Your task to perform on an android device: open chrome and create a bookmark for the current page Image 0: 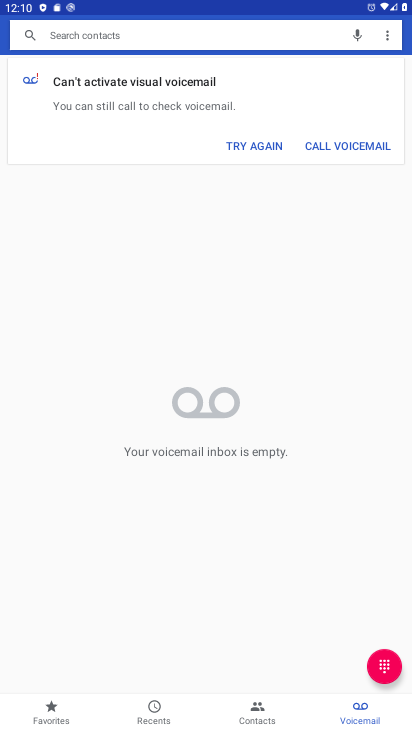
Step 0: drag from (310, 119) to (327, 54)
Your task to perform on an android device: open chrome and create a bookmark for the current page Image 1: 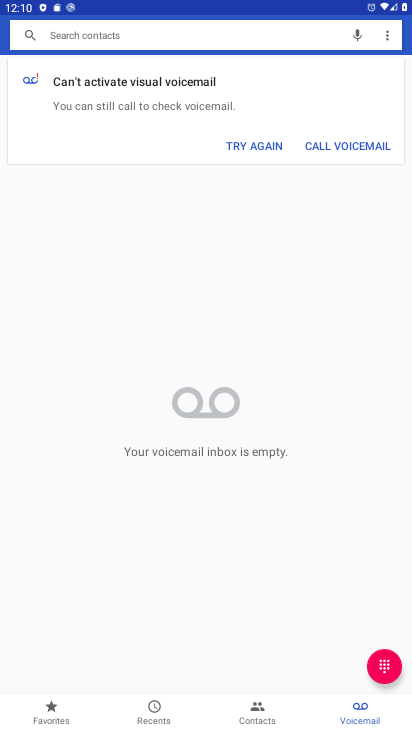
Step 1: press home button
Your task to perform on an android device: open chrome and create a bookmark for the current page Image 2: 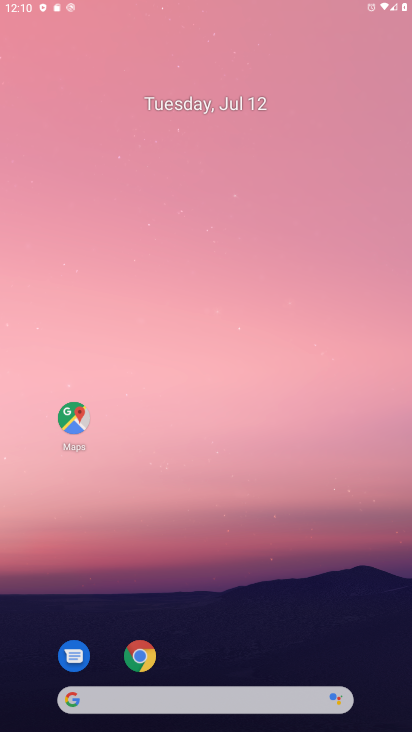
Step 2: drag from (72, 358) to (175, 167)
Your task to perform on an android device: open chrome and create a bookmark for the current page Image 3: 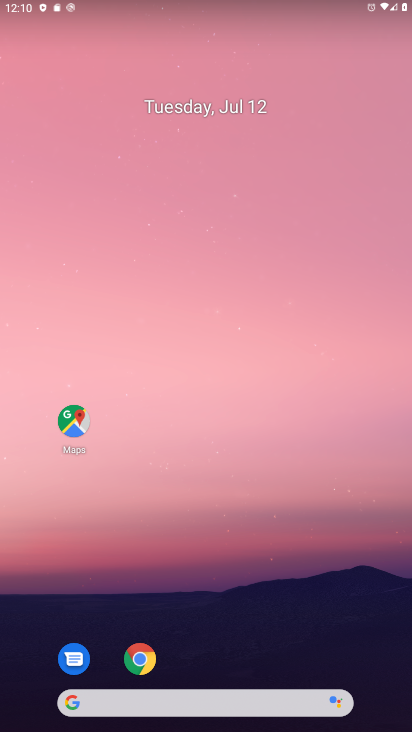
Step 3: click (133, 673)
Your task to perform on an android device: open chrome and create a bookmark for the current page Image 4: 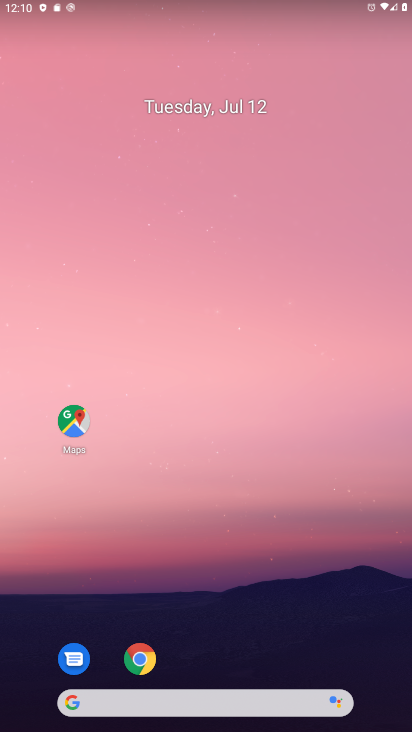
Step 4: click (146, 658)
Your task to perform on an android device: open chrome and create a bookmark for the current page Image 5: 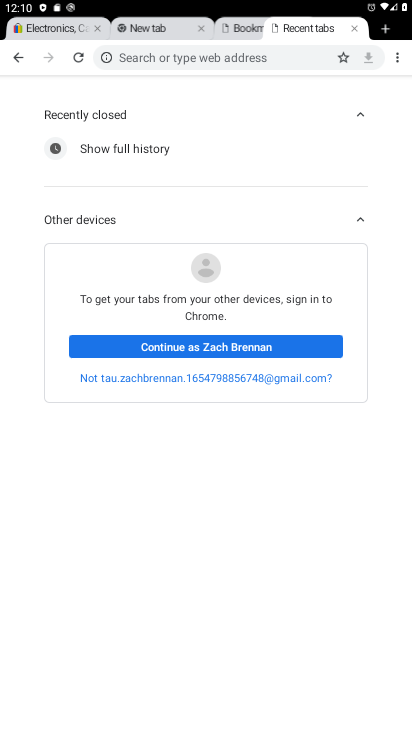
Step 5: click (402, 61)
Your task to perform on an android device: open chrome and create a bookmark for the current page Image 6: 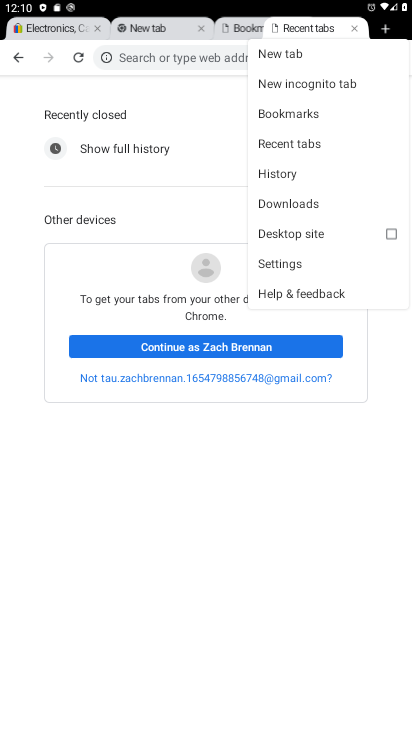
Step 6: click (297, 125)
Your task to perform on an android device: open chrome and create a bookmark for the current page Image 7: 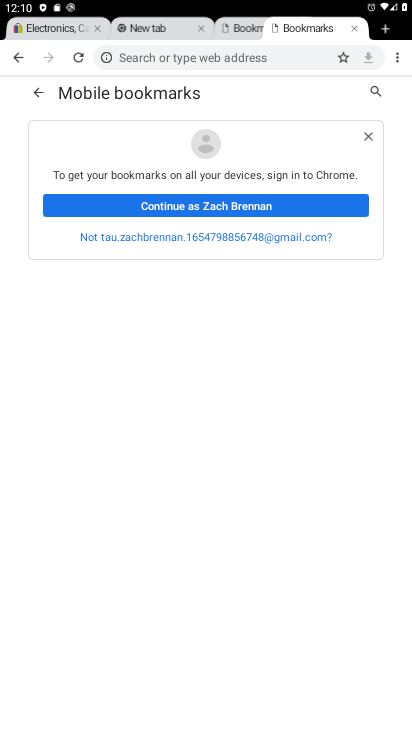
Step 7: click (340, 51)
Your task to perform on an android device: open chrome and create a bookmark for the current page Image 8: 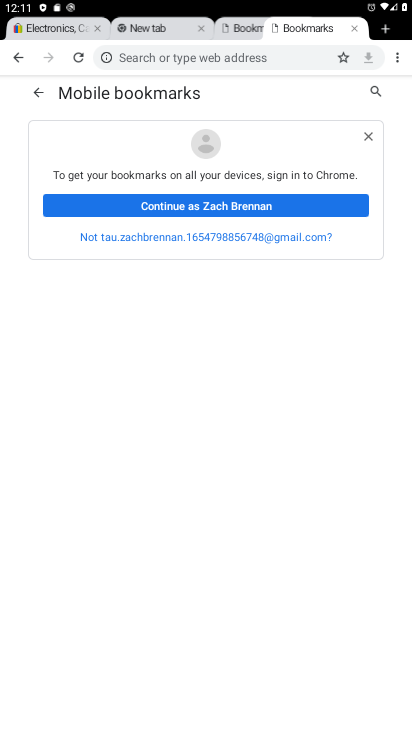
Step 8: drag from (289, 523) to (261, 112)
Your task to perform on an android device: open chrome and create a bookmark for the current page Image 9: 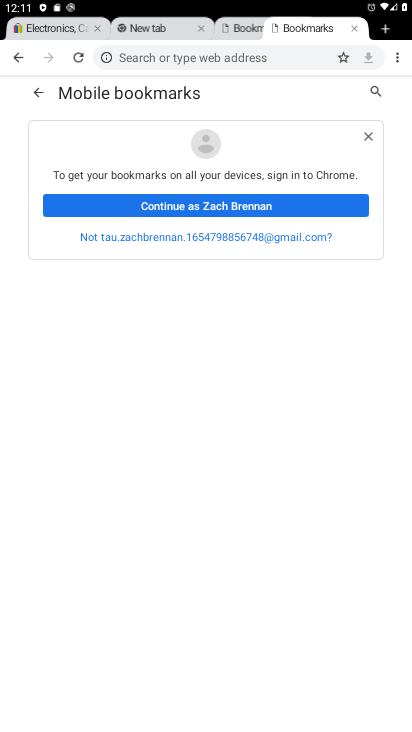
Step 9: click (345, 61)
Your task to perform on an android device: open chrome and create a bookmark for the current page Image 10: 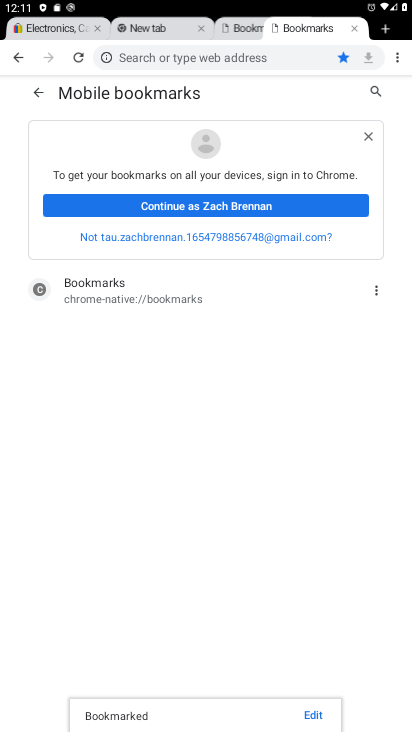
Step 10: task complete